Your task to perform on an android device: stop showing notifications on the lock screen Image 0: 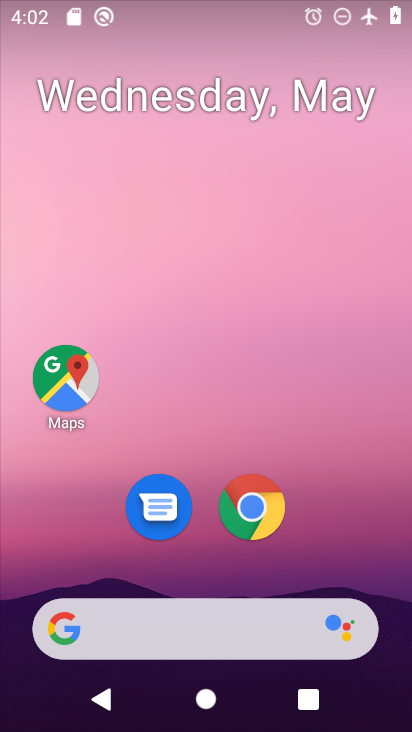
Step 0: drag from (256, 591) to (261, 200)
Your task to perform on an android device: stop showing notifications on the lock screen Image 1: 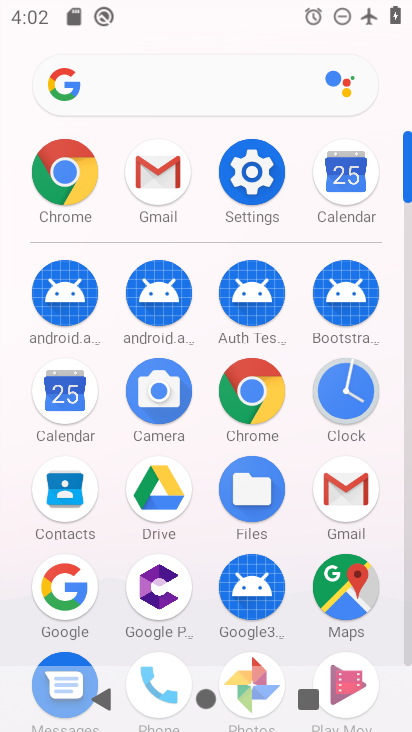
Step 1: click (257, 196)
Your task to perform on an android device: stop showing notifications on the lock screen Image 2: 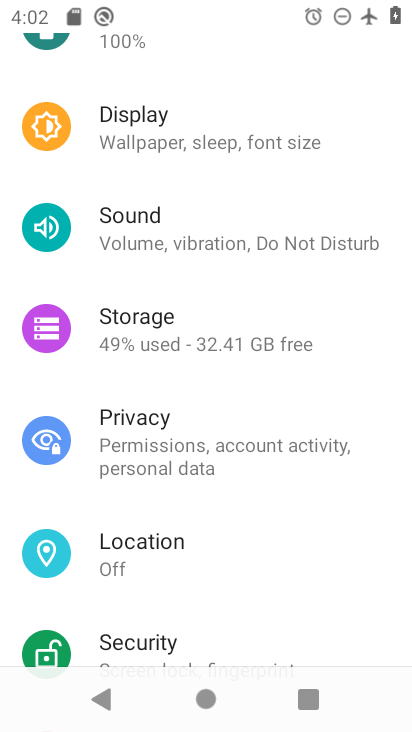
Step 2: drag from (284, 245) to (225, 502)
Your task to perform on an android device: stop showing notifications on the lock screen Image 3: 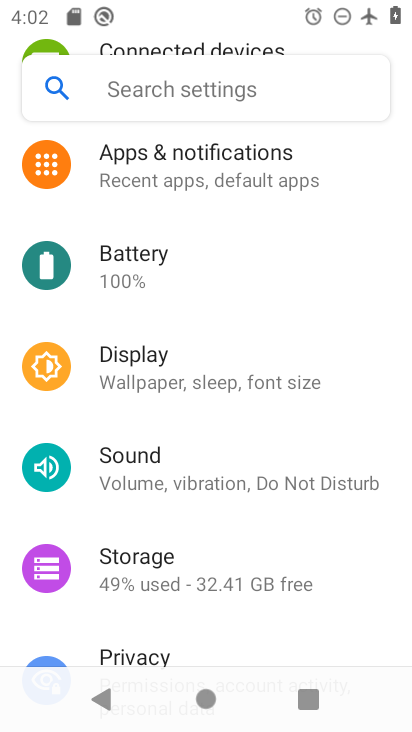
Step 3: drag from (254, 434) to (261, 524)
Your task to perform on an android device: stop showing notifications on the lock screen Image 4: 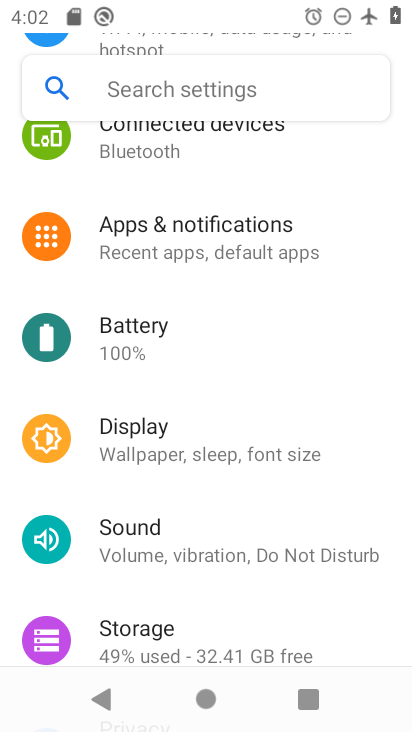
Step 4: drag from (305, 331) to (281, 529)
Your task to perform on an android device: stop showing notifications on the lock screen Image 5: 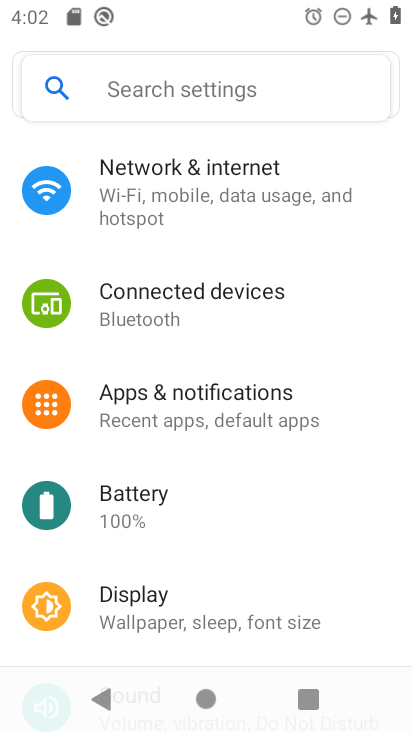
Step 5: drag from (280, 418) to (275, 476)
Your task to perform on an android device: stop showing notifications on the lock screen Image 6: 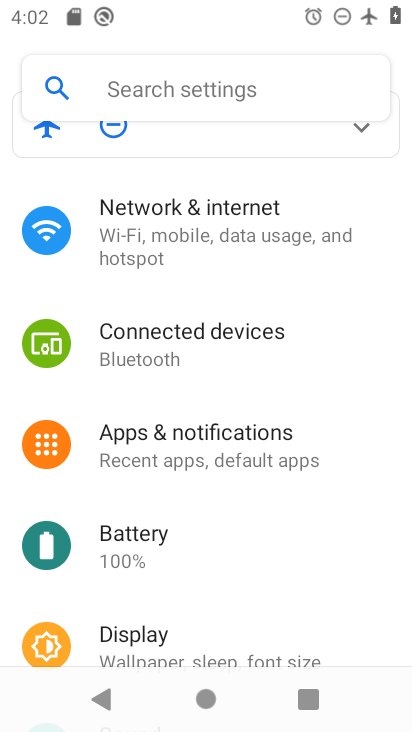
Step 6: click (275, 457)
Your task to perform on an android device: stop showing notifications on the lock screen Image 7: 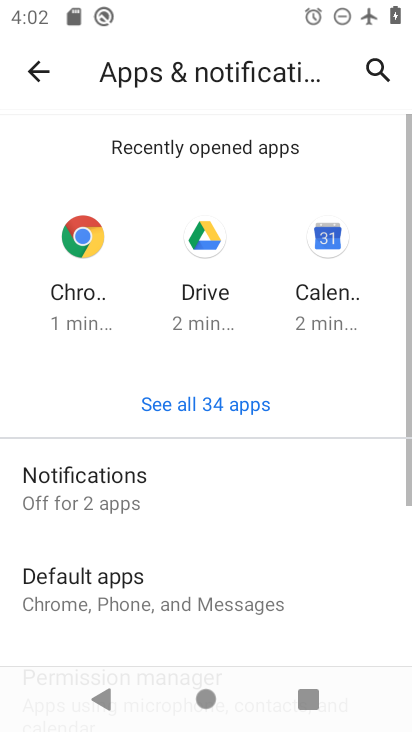
Step 7: click (220, 503)
Your task to perform on an android device: stop showing notifications on the lock screen Image 8: 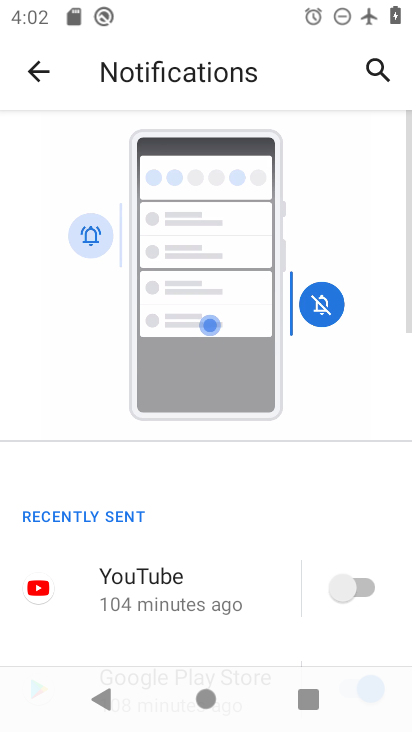
Step 8: drag from (210, 520) to (281, 147)
Your task to perform on an android device: stop showing notifications on the lock screen Image 9: 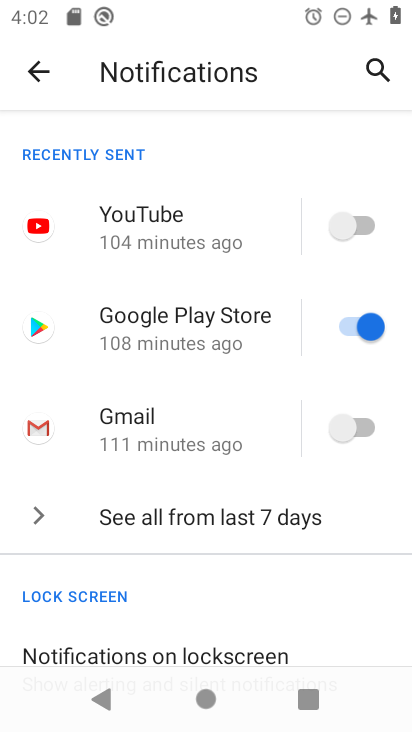
Step 9: drag from (107, 526) to (181, 262)
Your task to perform on an android device: stop showing notifications on the lock screen Image 10: 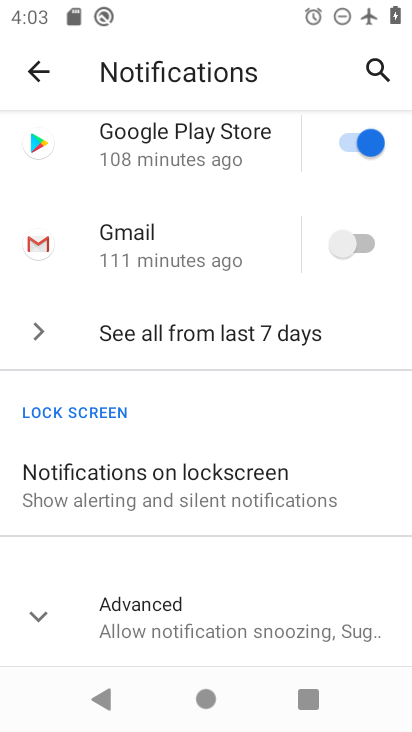
Step 10: click (259, 518)
Your task to perform on an android device: stop showing notifications on the lock screen Image 11: 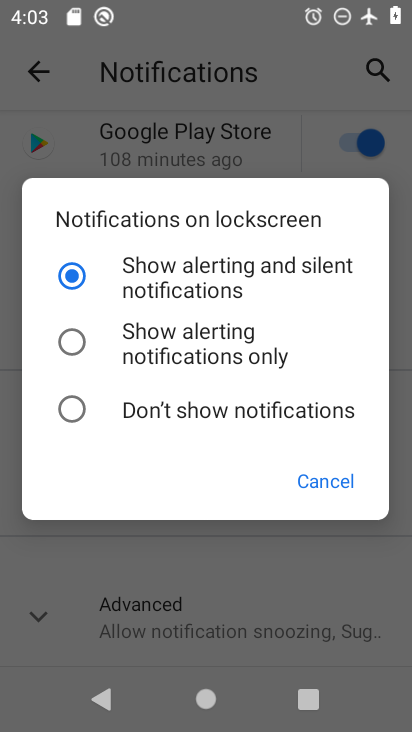
Step 11: click (77, 412)
Your task to perform on an android device: stop showing notifications on the lock screen Image 12: 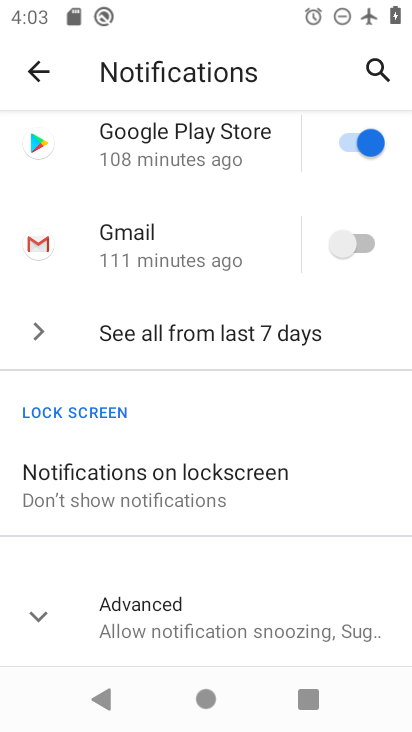
Step 12: task complete